Your task to perform on an android device: Search for "apple airpods pro" on costco.com, select the first entry, add it to the cart, then select checkout. Image 0: 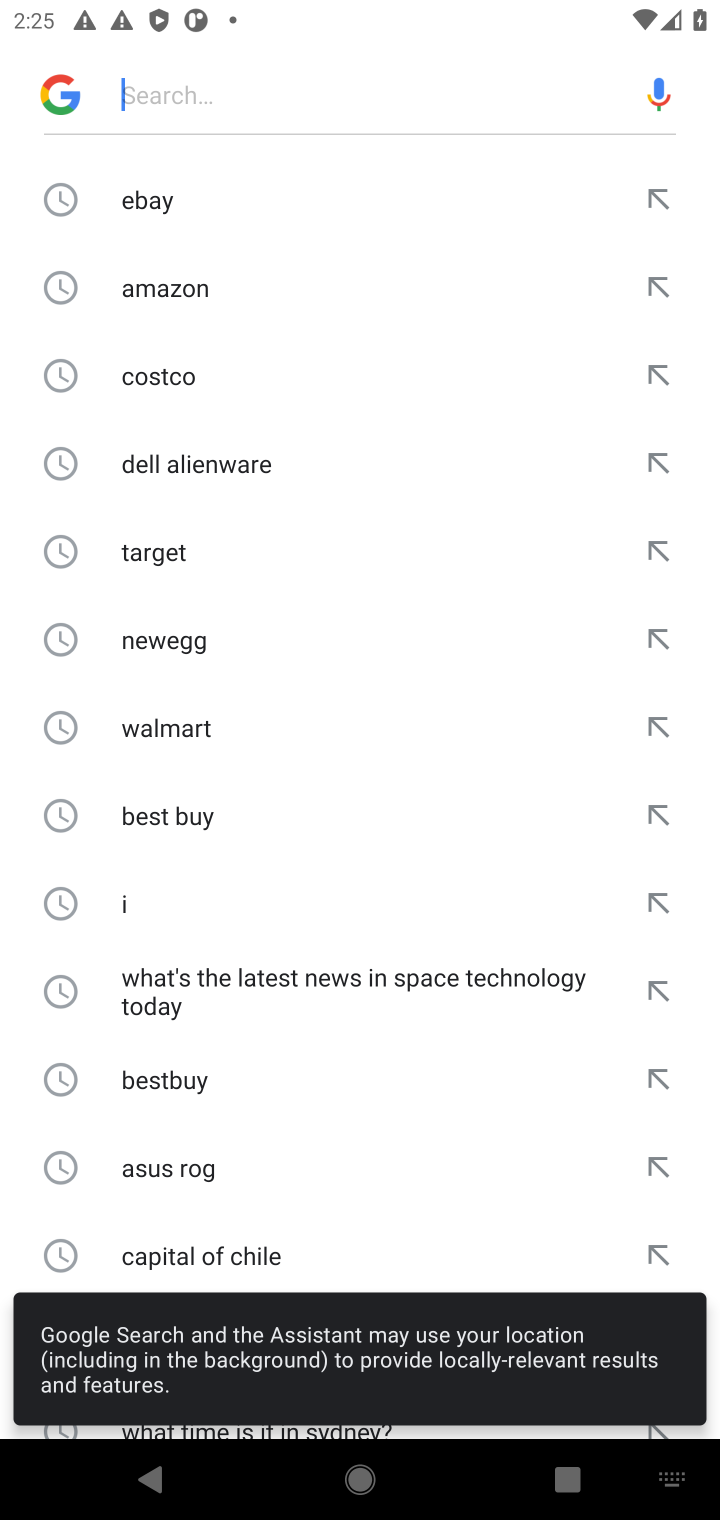
Step 0: press home button
Your task to perform on an android device: Search for "apple airpods pro" on costco.com, select the first entry, add it to the cart, then select checkout. Image 1: 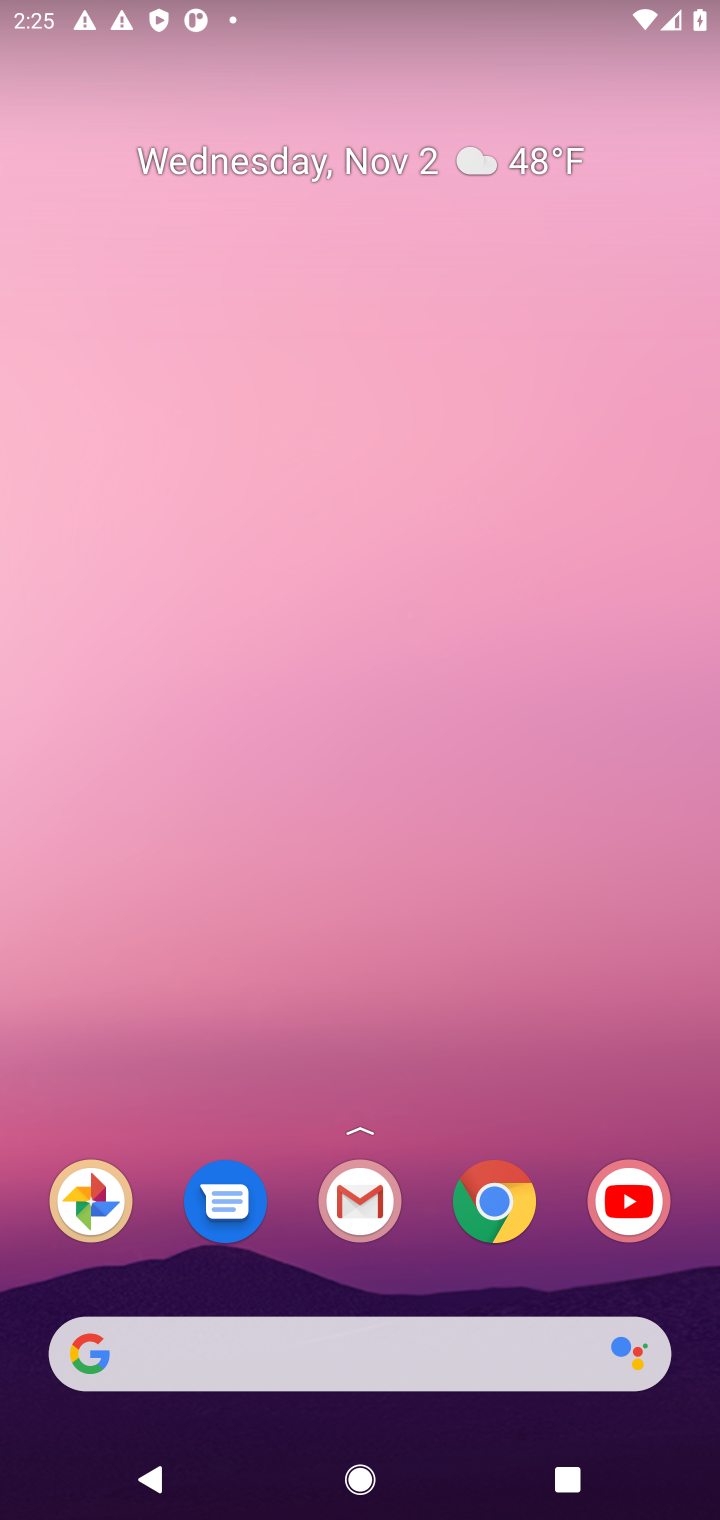
Step 1: click (501, 1204)
Your task to perform on an android device: Search for "apple airpods pro" on costco.com, select the first entry, add it to the cart, then select checkout. Image 2: 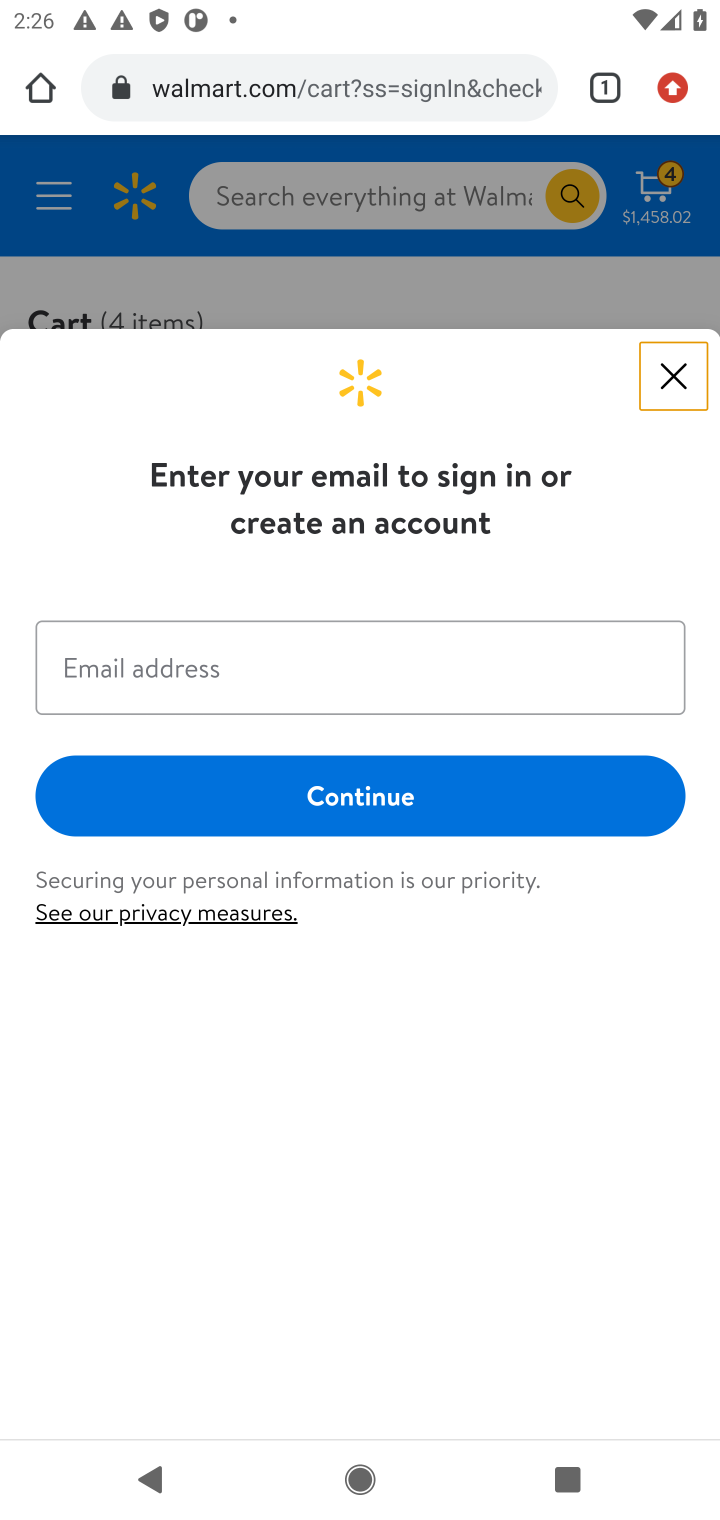
Step 2: click (672, 378)
Your task to perform on an android device: Search for "apple airpods pro" on costco.com, select the first entry, add it to the cart, then select checkout. Image 3: 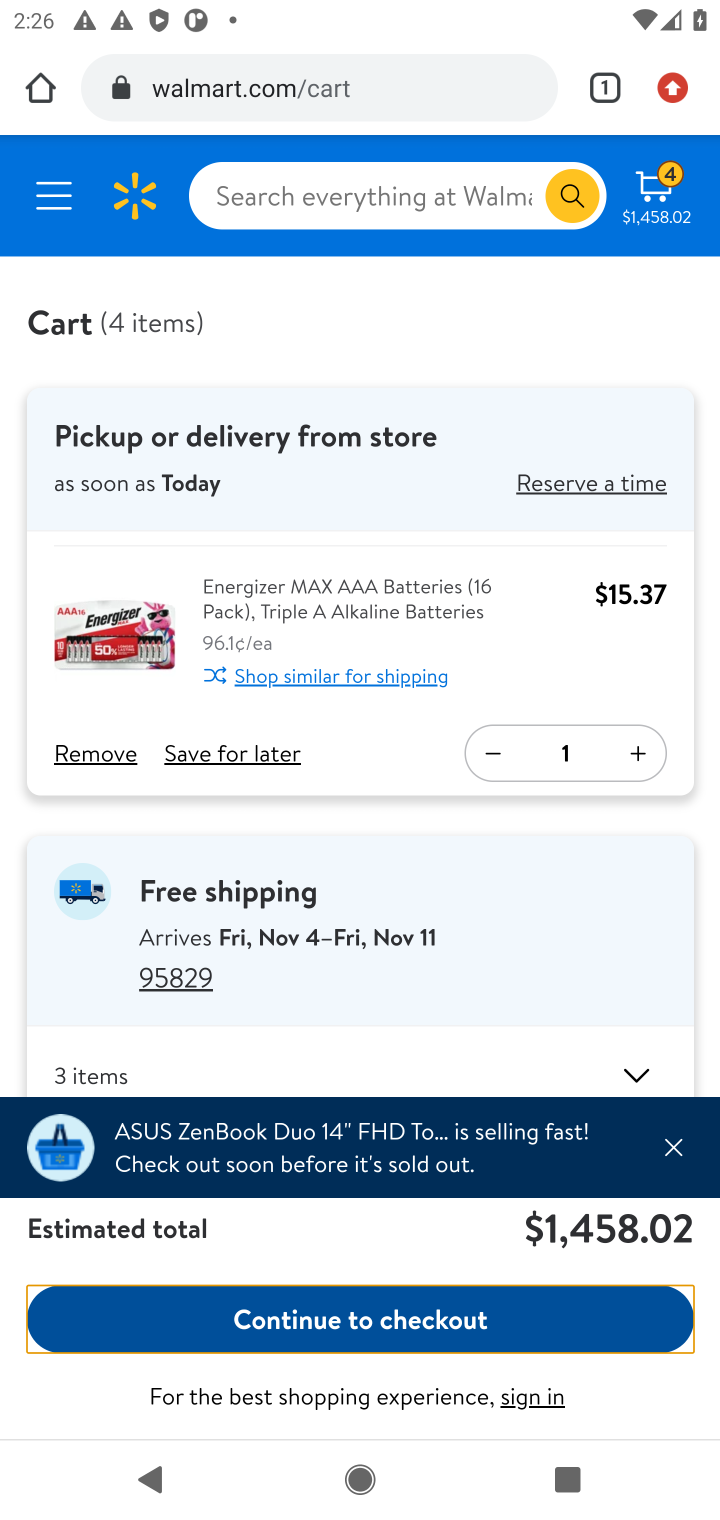
Step 3: click (377, 76)
Your task to perform on an android device: Search for "apple airpods pro" on costco.com, select the first entry, add it to the cart, then select checkout. Image 4: 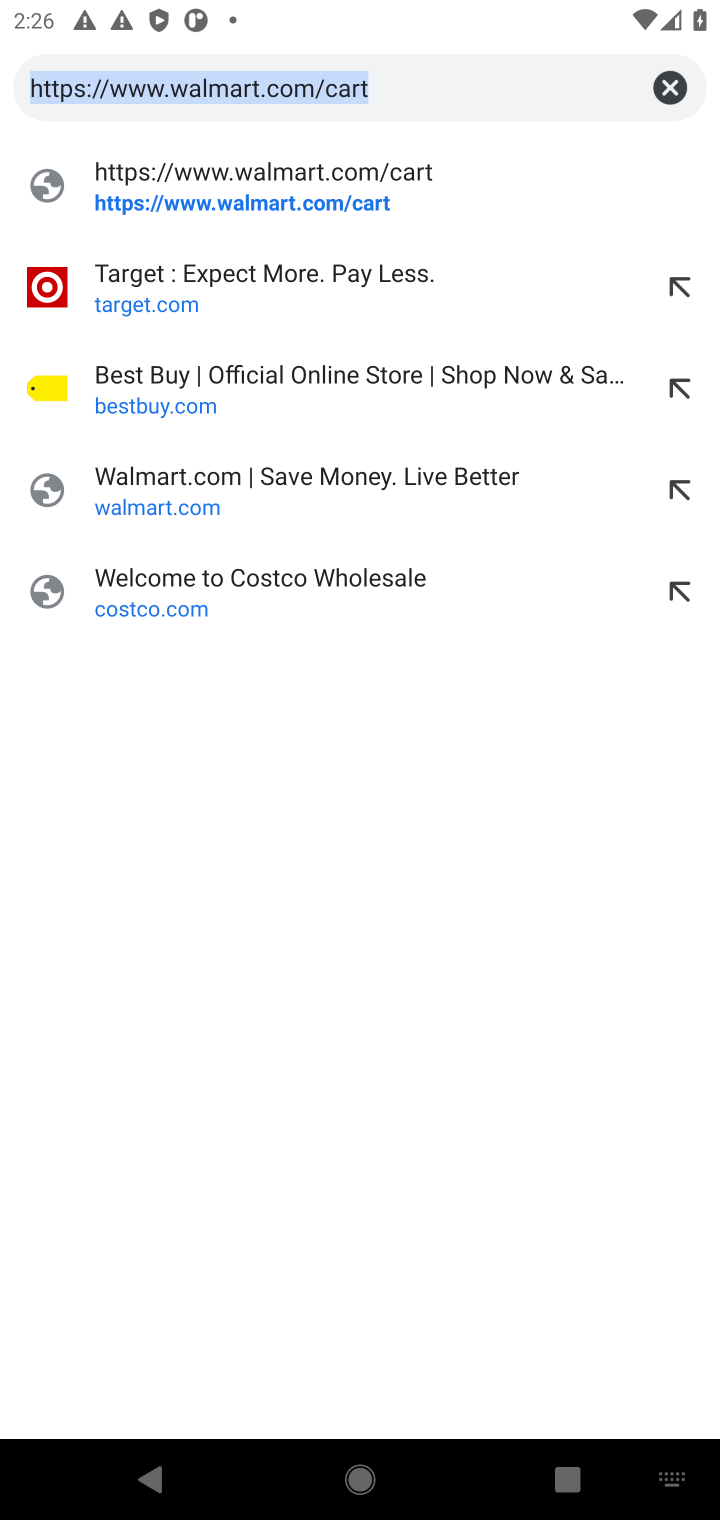
Step 4: click (679, 85)
Your task to perform on an android device: Search for "apple airpods pro" on costco.com, select the first entry, add it to the cart, then select checkout. Image 5: 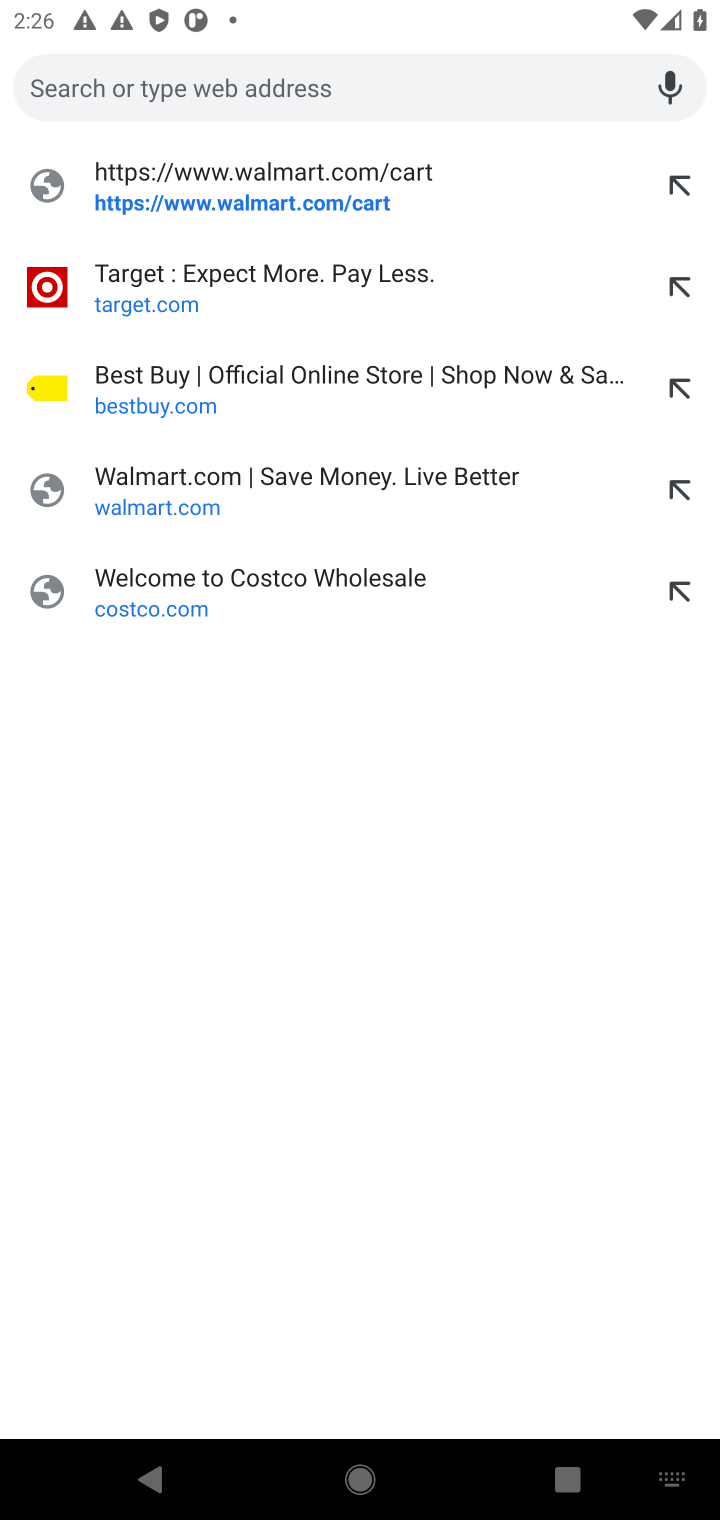
Step 5: type "costco.com"
Your task to perform on an android device: Search for "apple airpods pro" on costco.com, select the first entry, add it to the cart, then select checkout. Image 6: 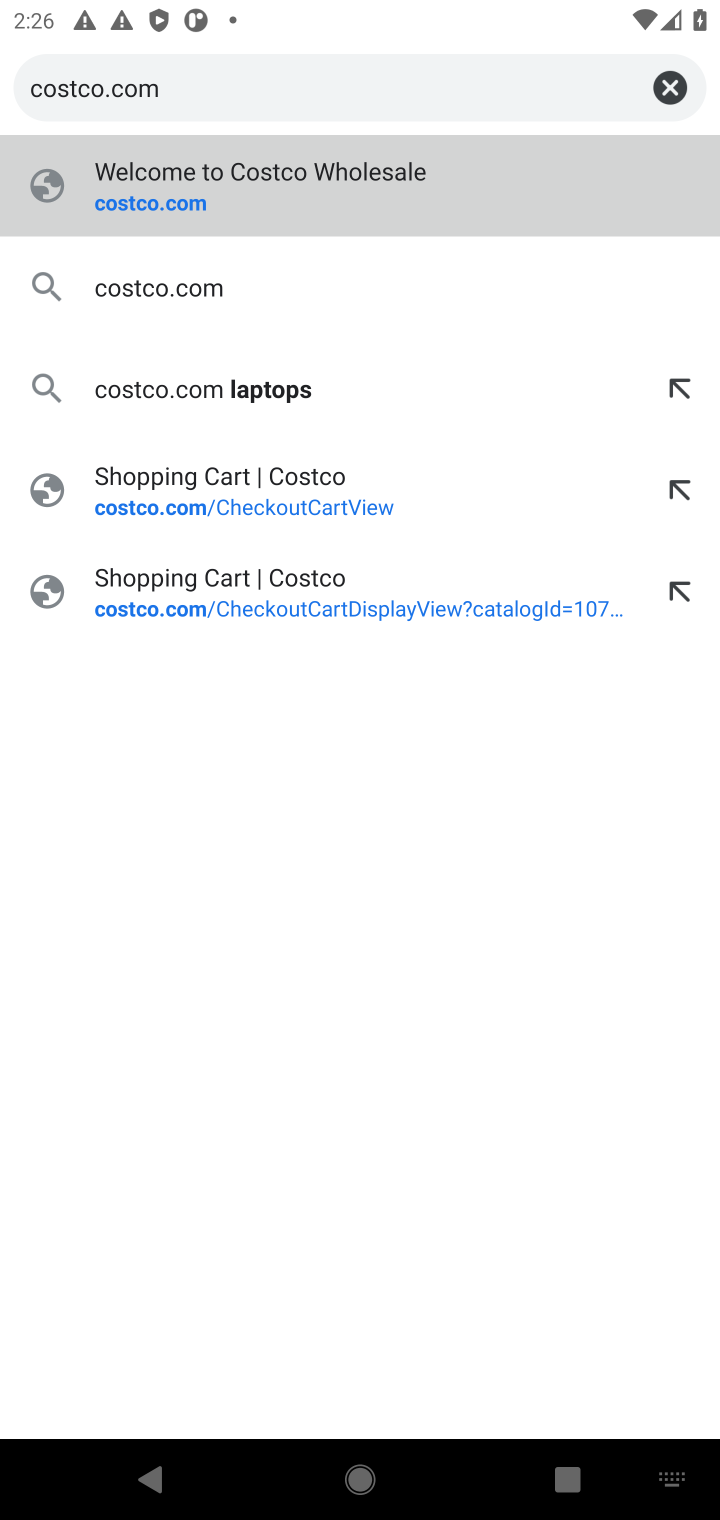
Step 6: press enter
Your task to perform on an android device: Search for "apple airpods pro" on costco.com, select the first entry, add it to the cart, then select checkout. Image 7: 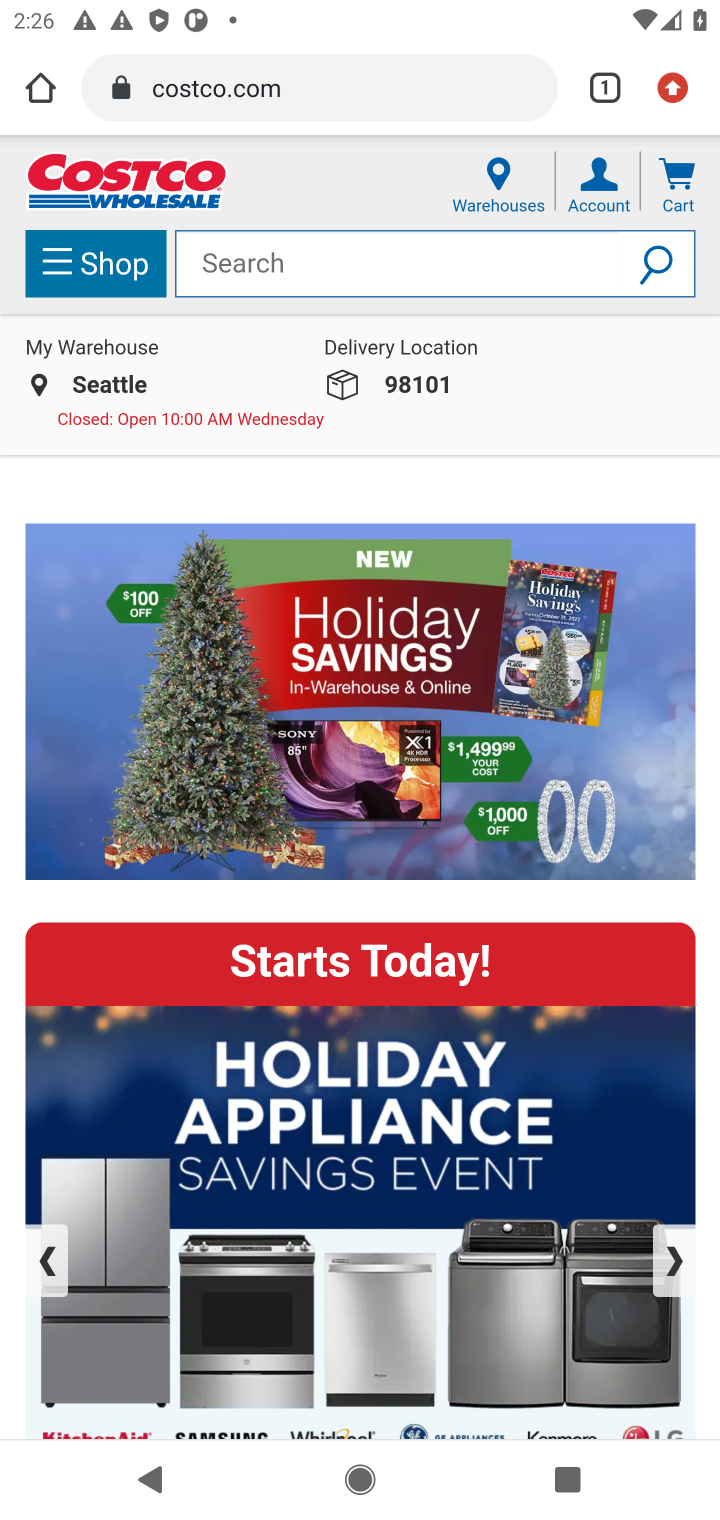
Step 7: click (455, 275)
Your task to perform on an android device: Search for "apple airpods pro" on costco.com, select the first entry, add it to the cart, then select checkout. Image 8: 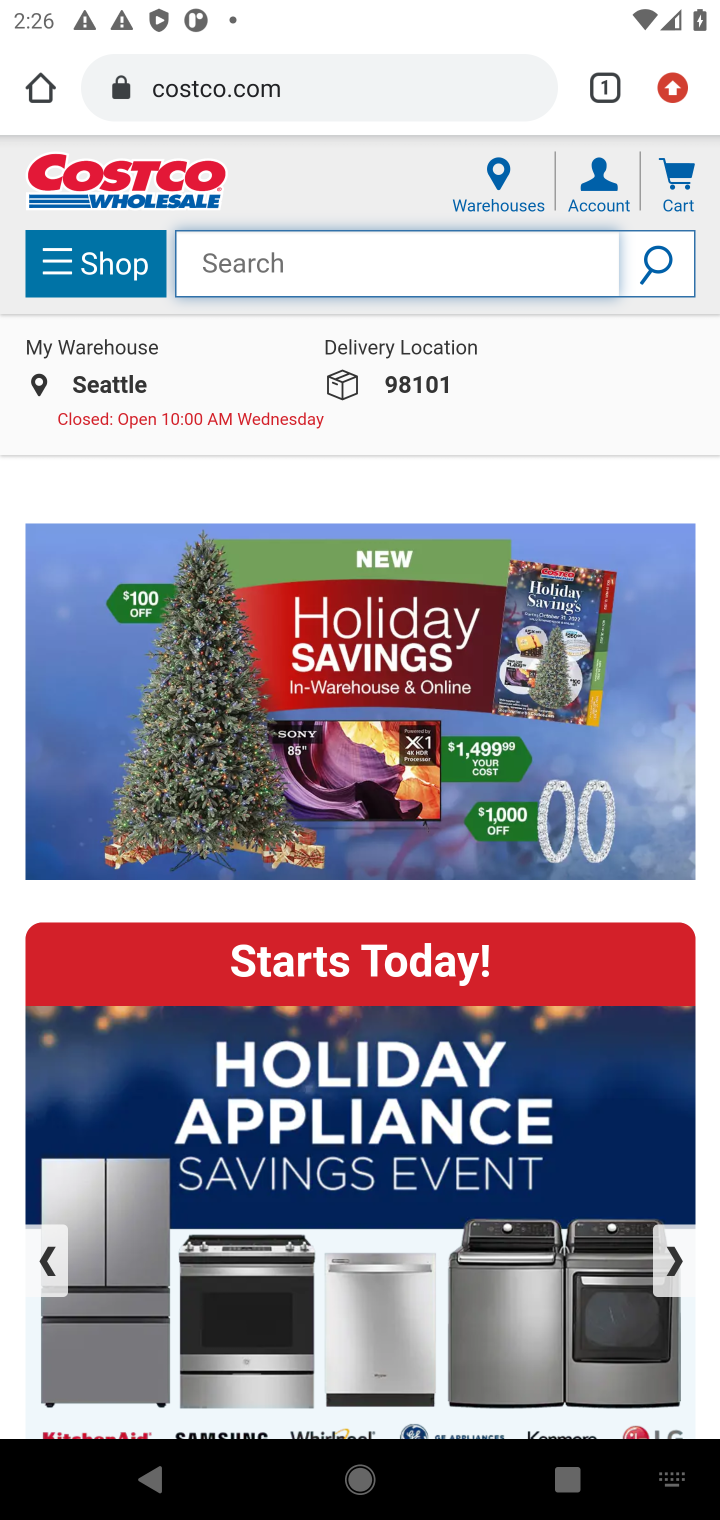
Step 8: press enter
Your task to perform on an android device: Search for "apple airpods pro" on costco.com, select the first entry, add it to the cart, then select checkout. Image 9: 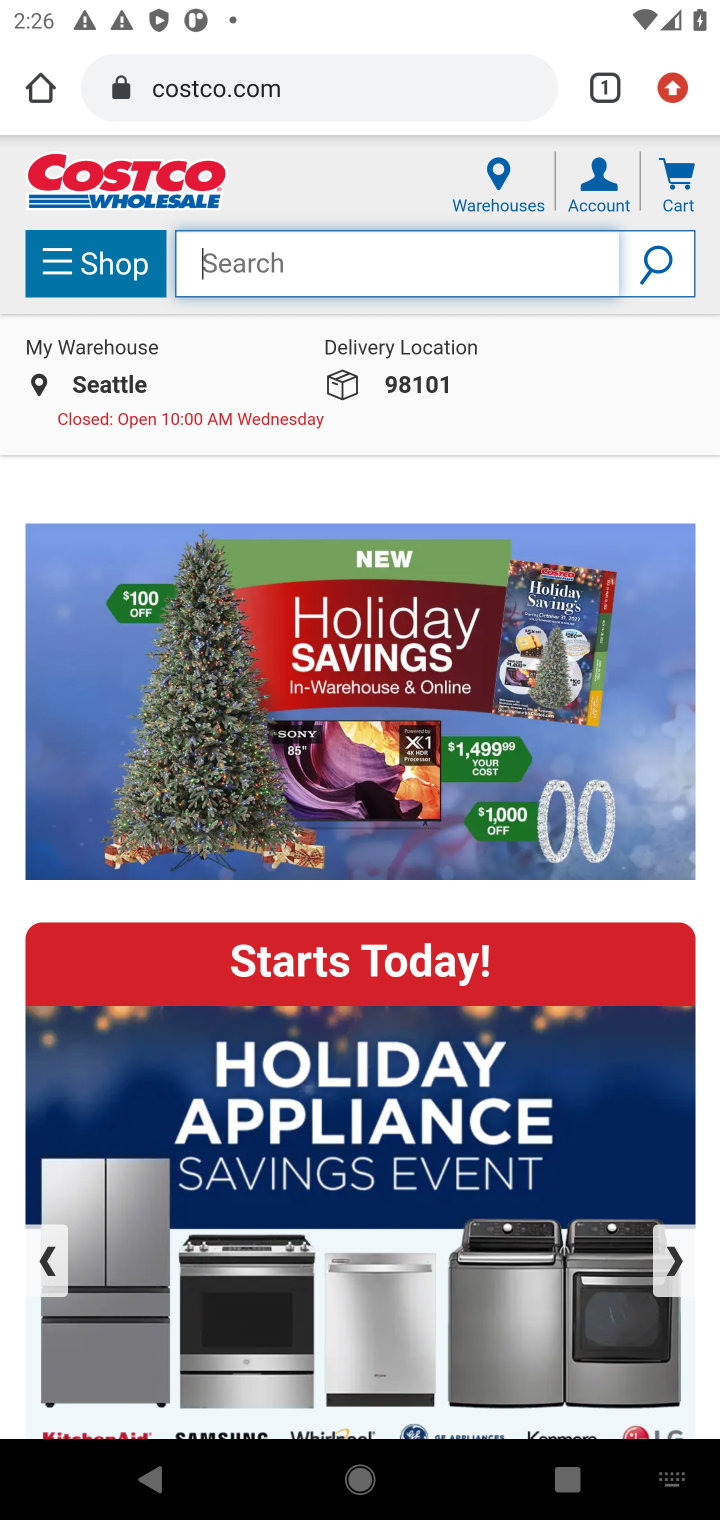
Step 9: type "apple airpods pro"
Your task to perform on an android device: Search for "apple airpods pro" on costco.com, select the first entry, add it to the cart, then select checkout. Image 10: 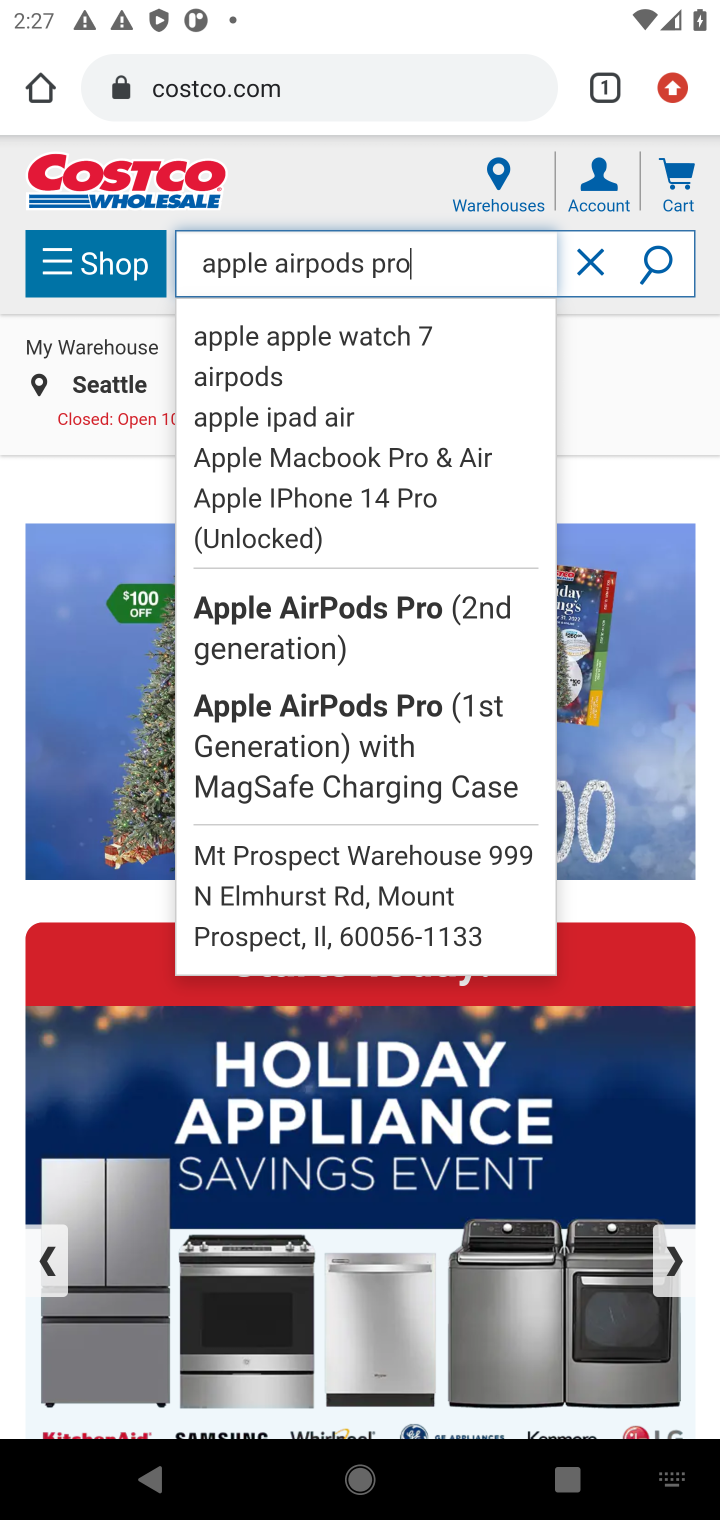
Step 10: click (660, 355)
Your task to perform on an android device: Search for "apple airpods pro" on costco.com, select the first entry, add it to the cart, then select checkout. Image 11: 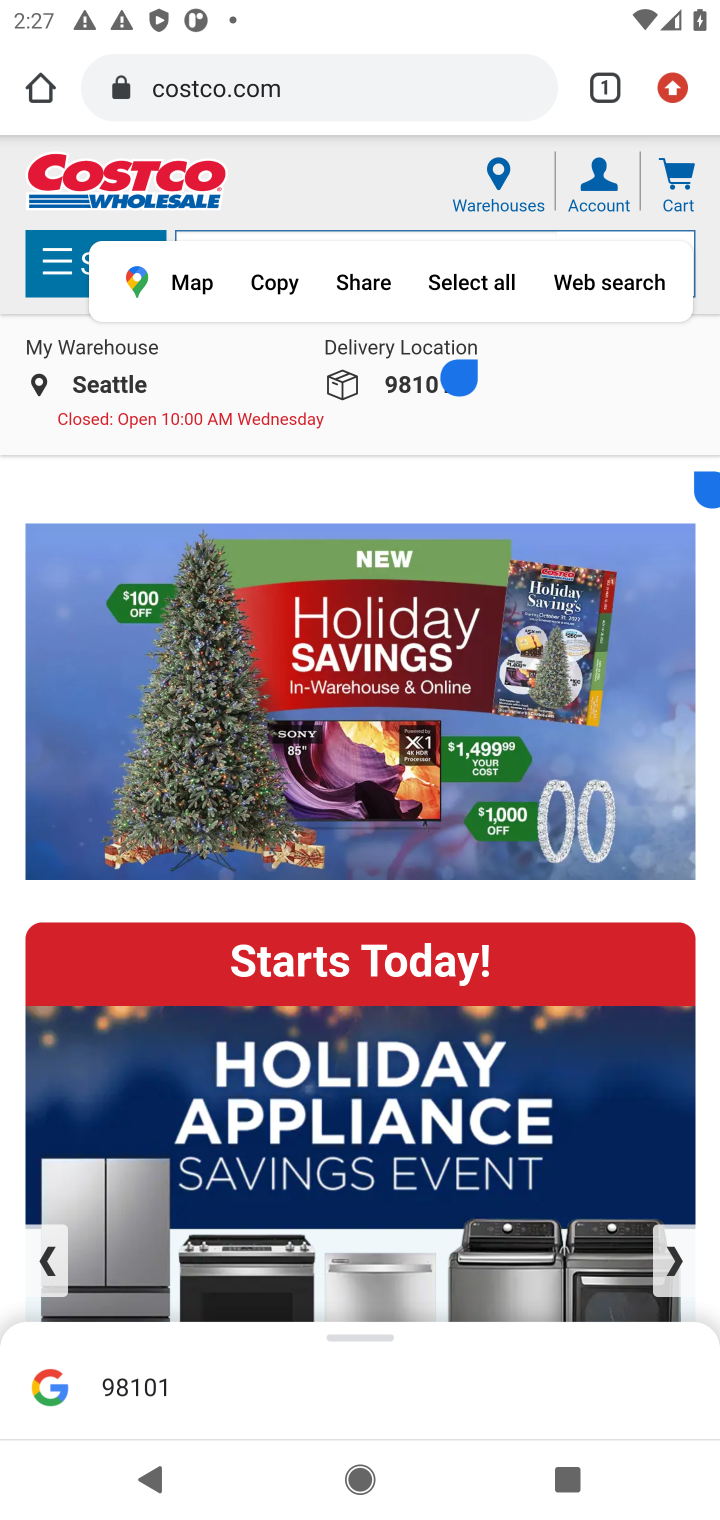
Step 11: click (660, 355)
Your task to perform on an android device: Search for "apple airpods pro" on costco.com, select the first entry, add it to the cart, then select checkout. Image 12: 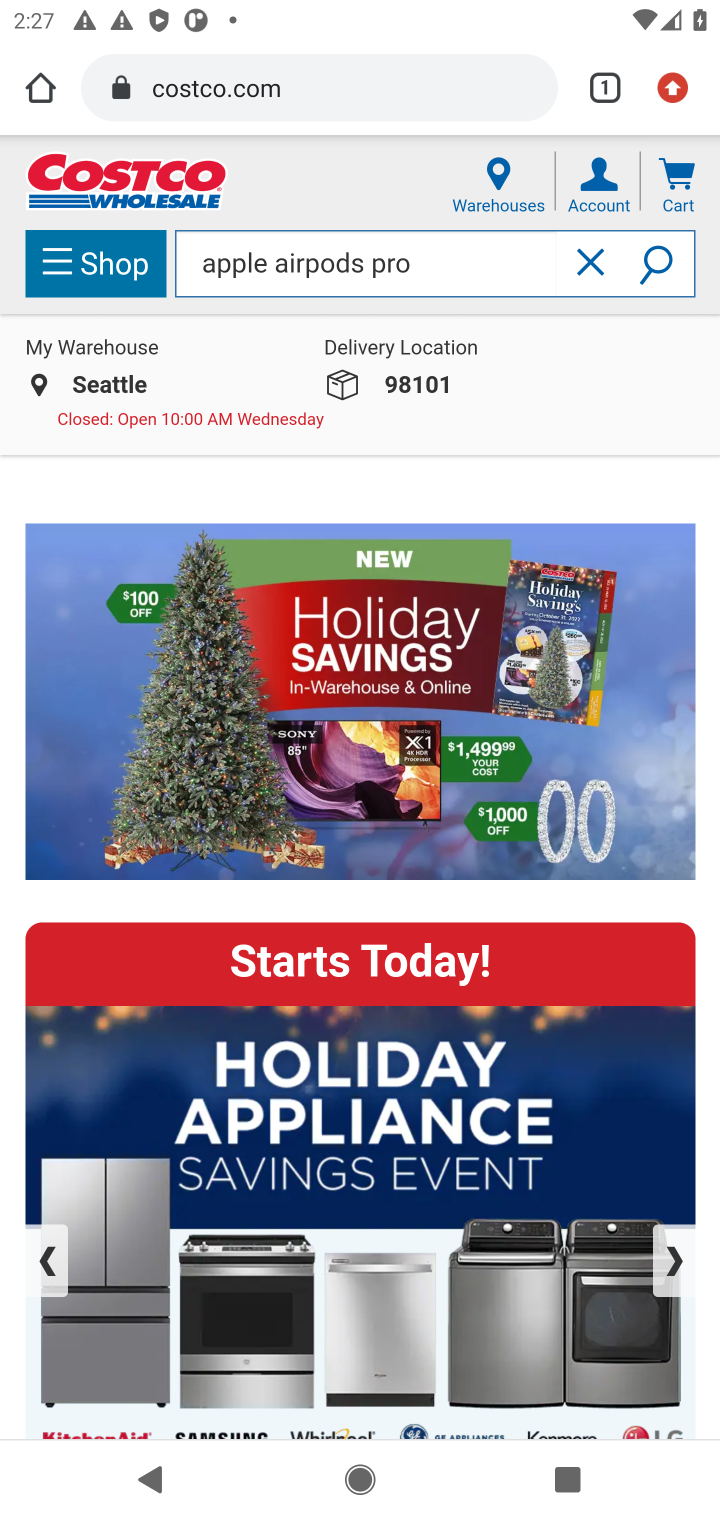
Step 12: click (456, 249)
Your task to perform on an android device: Search for "apple airpods pro" on costco.com, select the first entry, add it to the cart, then select checkout. Image 13: 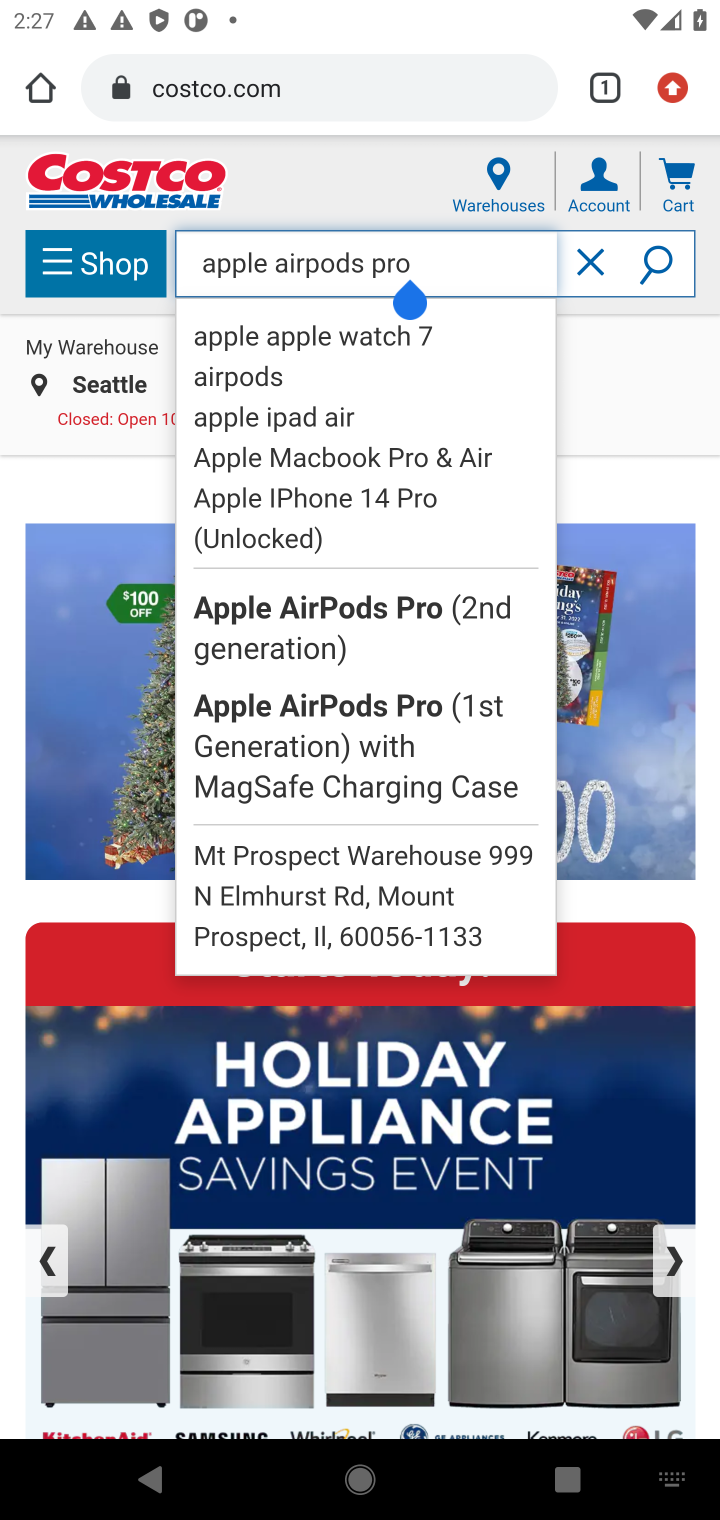
Step 13: click (257, 374)
Your task to perform on an android device: Search for "apple airpods pro" on costco.com, select the first entry, add it to the cart, then select checkout. Image 14: 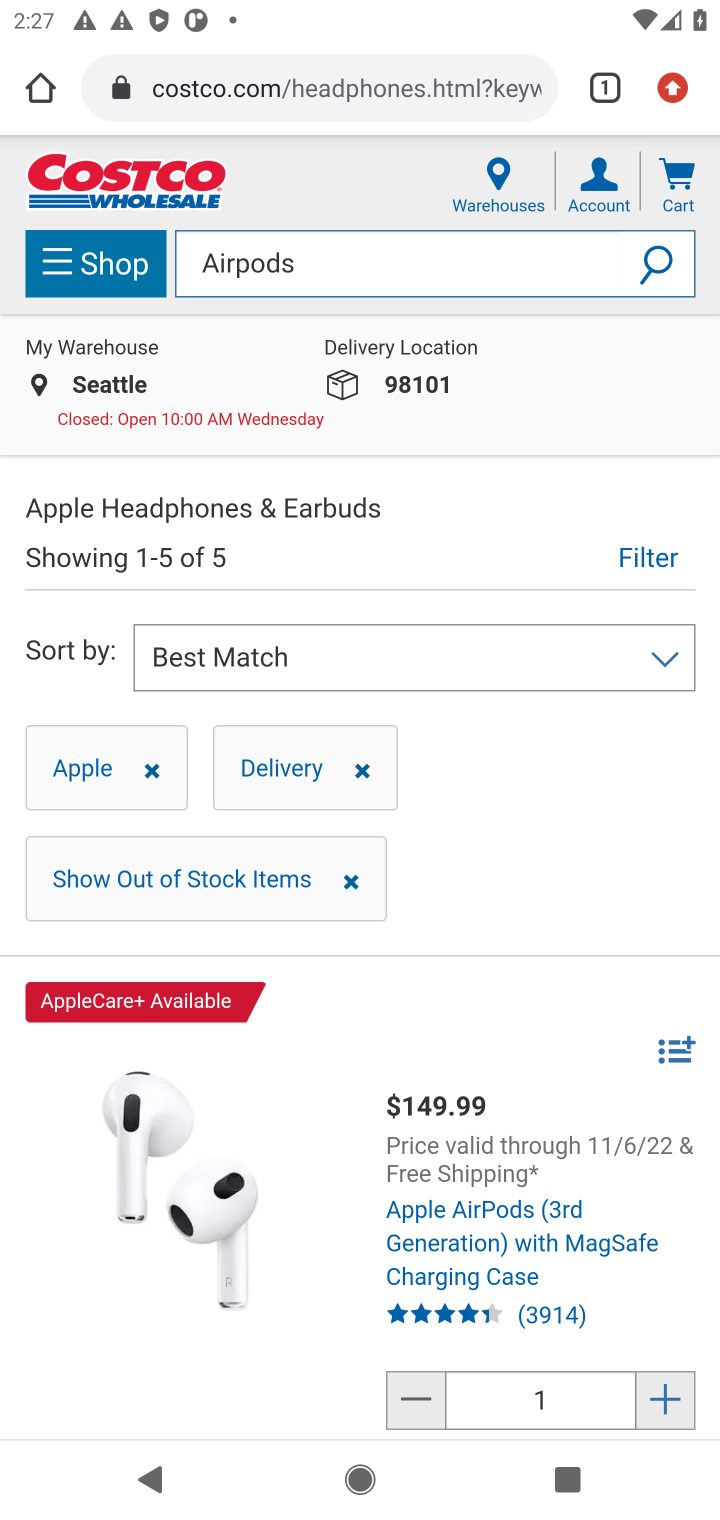
Step 14: click (240, 1176)
Your task to perform on an android device: Search for "apple airpods pro" on costco.com, select the first entry, add it to the cart, then select checkout. Image 15: 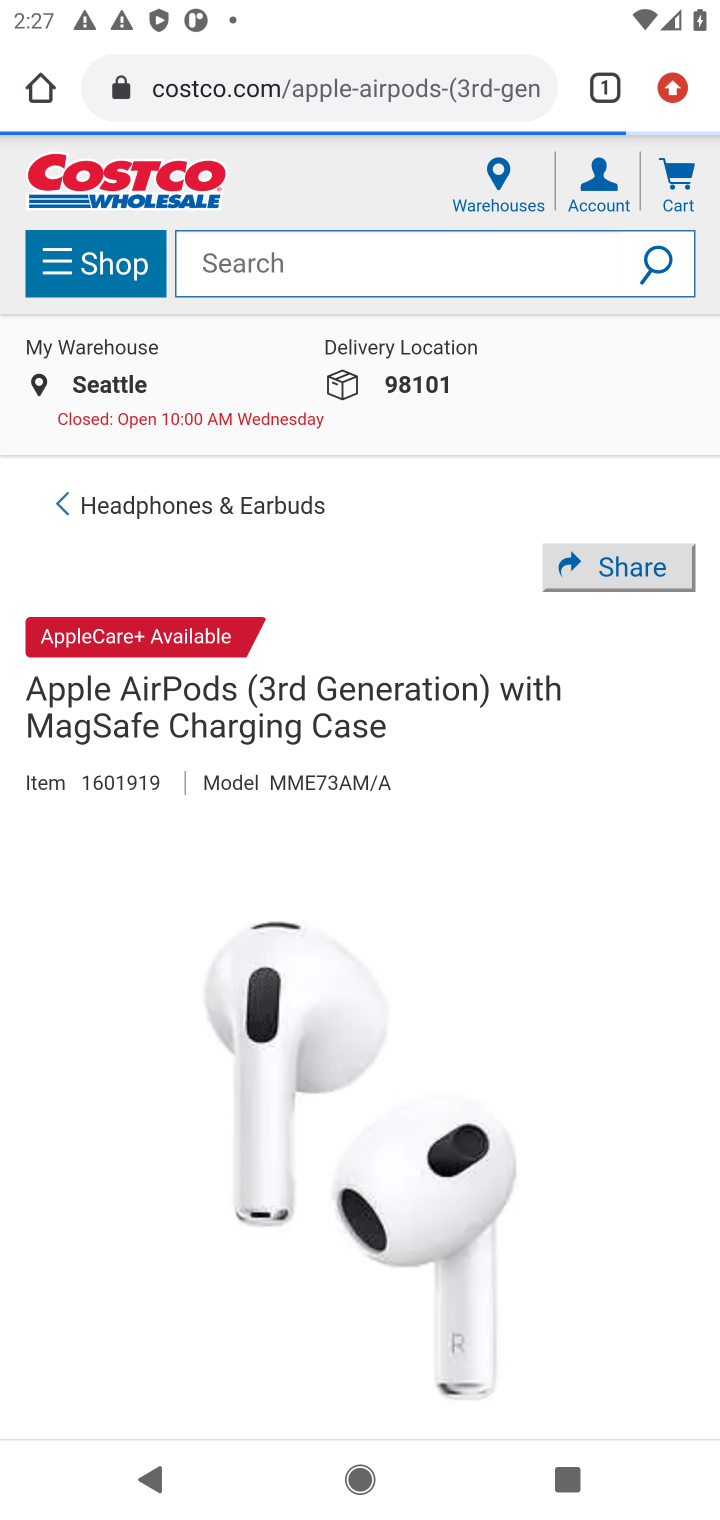
Step 15: drag from (538, 1048) to (553, 422)
Your task to perform on an android device: Search for "apple airpods pro" on costco.com, select the first entry, add it to the cart, then select checkout. Image 16: 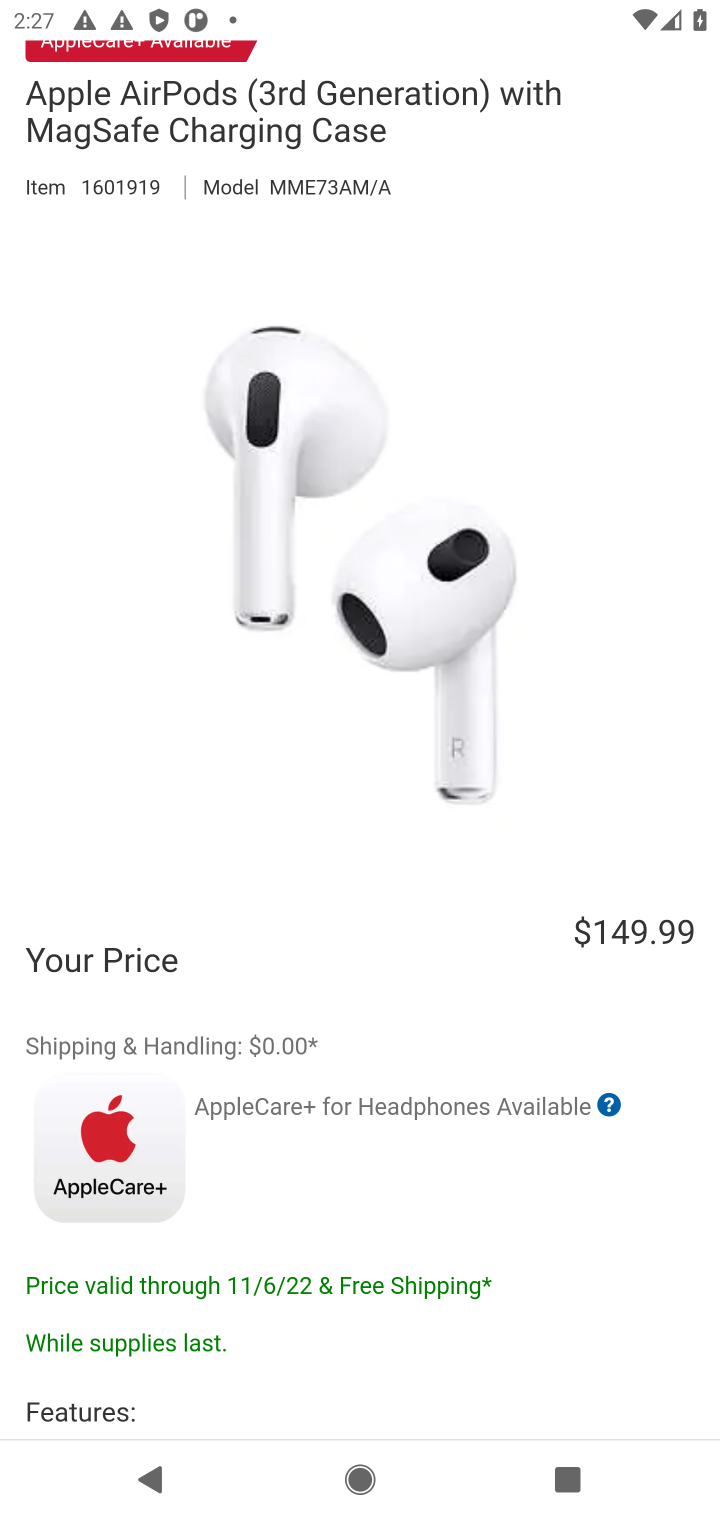
Step 16: drag from (502, 1179) to (435, 503)
Your task to perform on an android device: Search for "apple airpods pro" on costco.com, select the first entry, add it to the cart, then select checkout. Image 17: 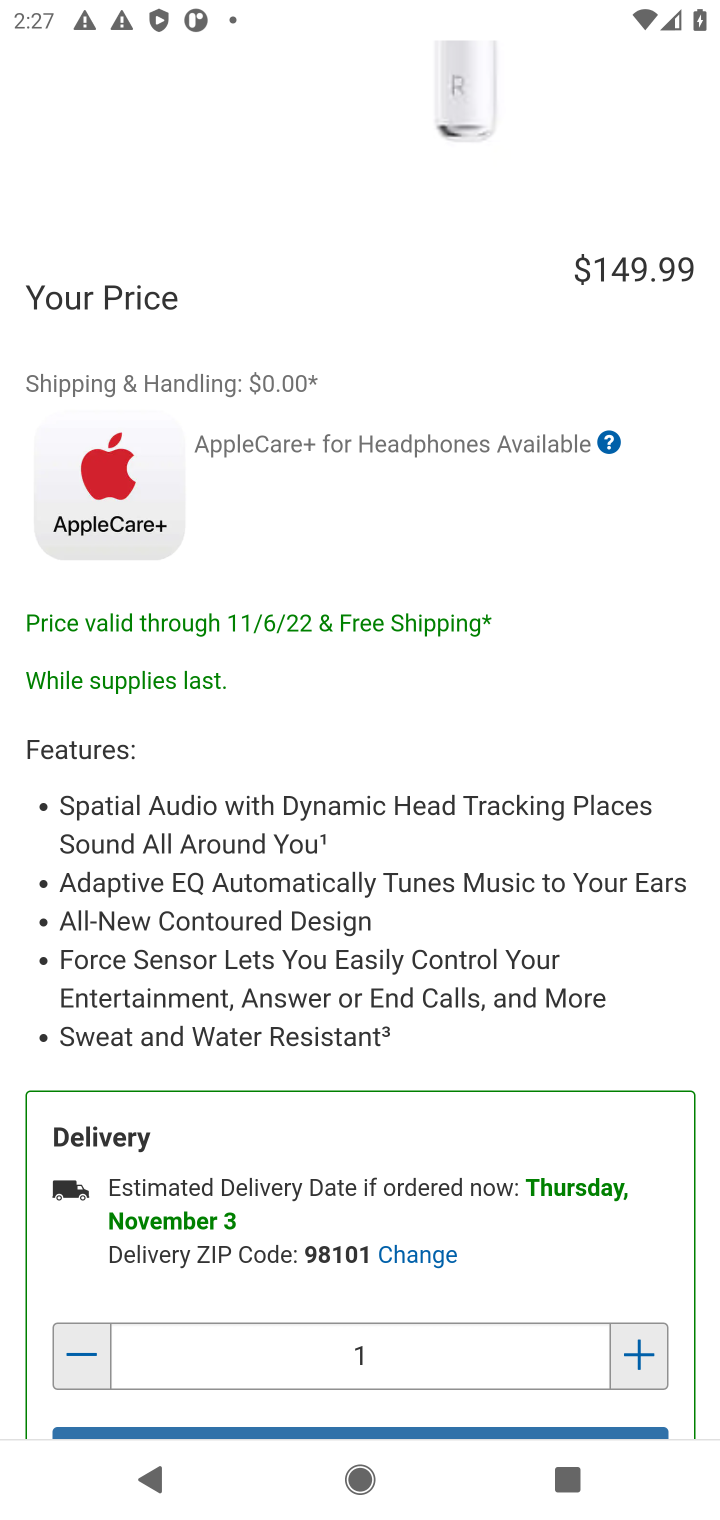
Step 17: drag from (461, 997) to (495, 548)
Your task to perform on an android device: Search for "apple airpods pro" on costco.com, select the first entry, add it to the cart, then select checkout. Image 18: 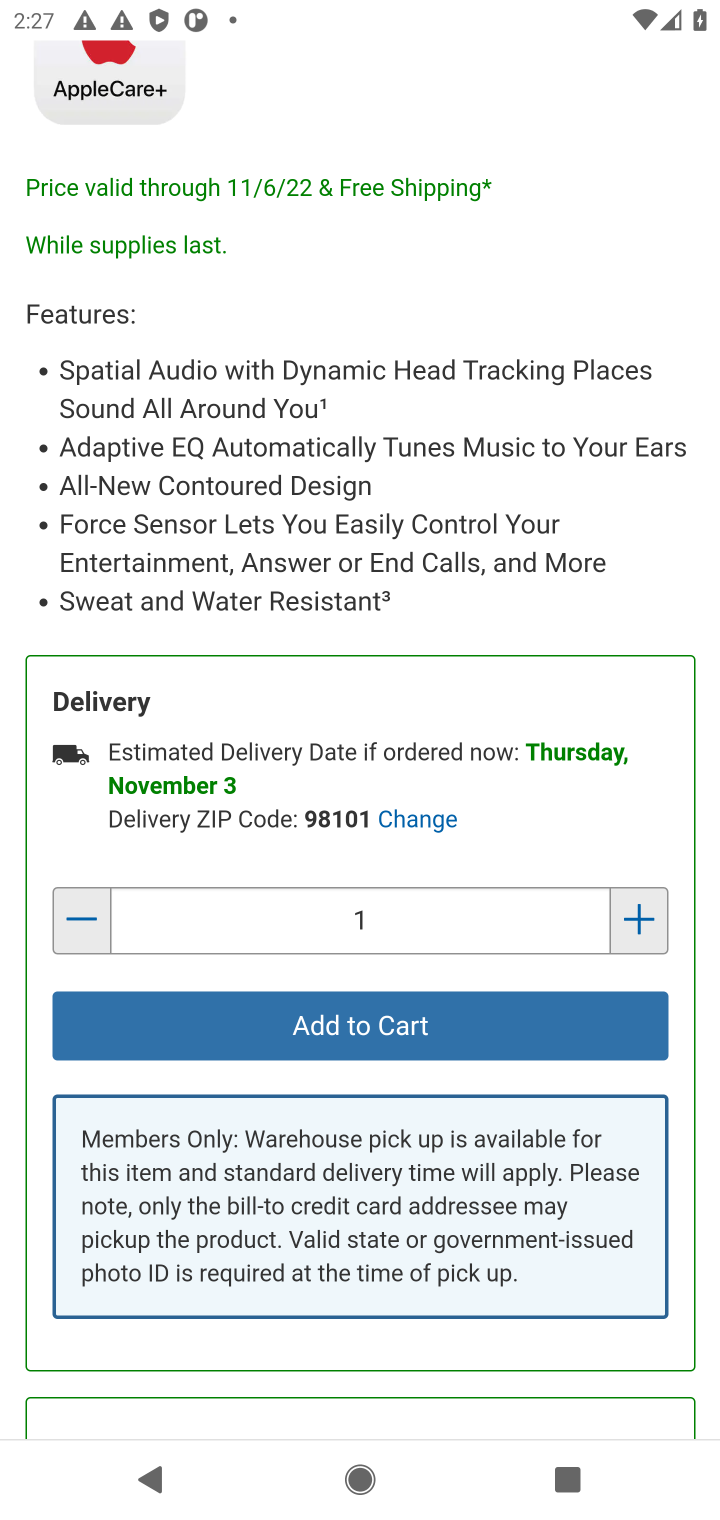
Step 18: click (402, 1031)
Your task to perform on an android device: Search for "apple airpods pro" on costco.com, select the first entry, add it to the cart, then select checkout. Image 19: 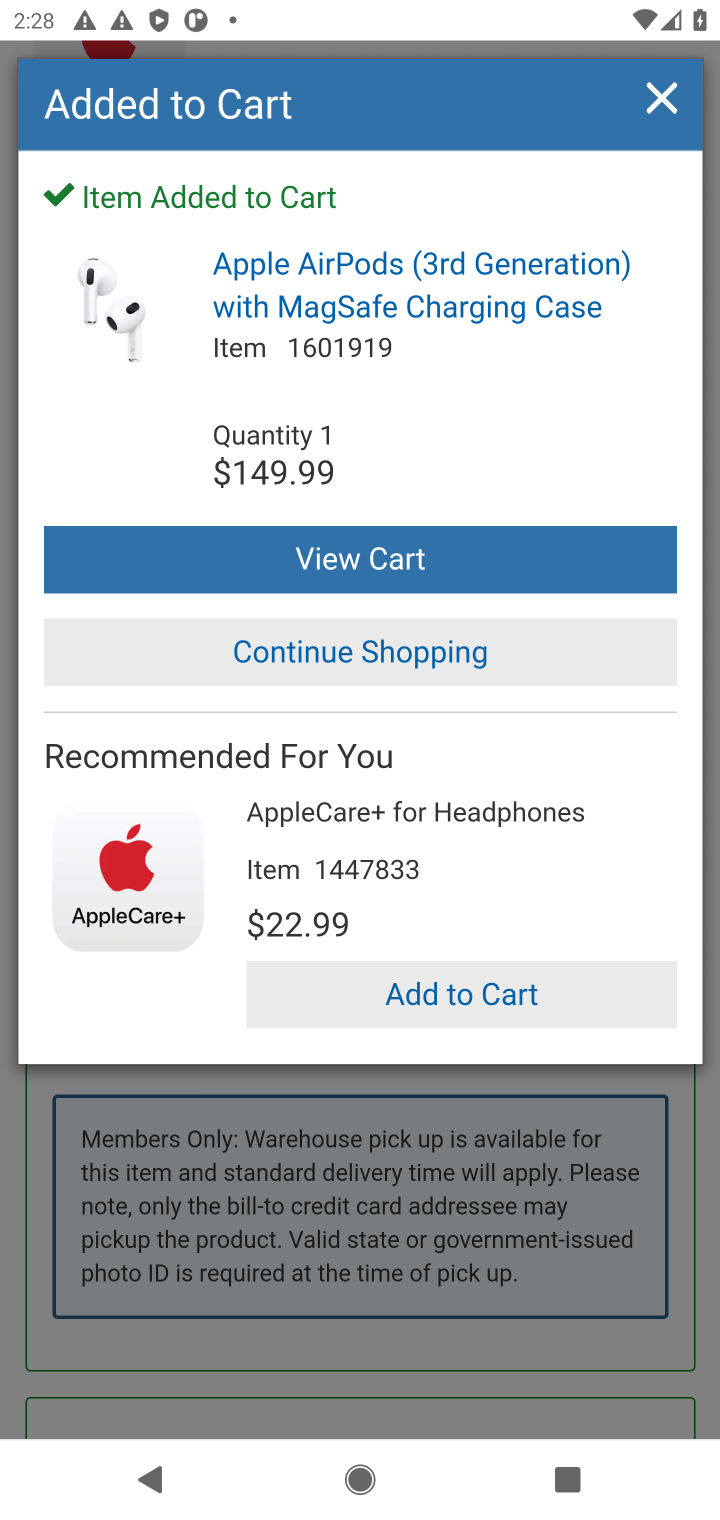
Step 19: click (436, 555)
Your task to perform on an android device: Search for "apple airpods pro" on costco.com, select the first entry, add it to the cart, then select checkout. Image 20: 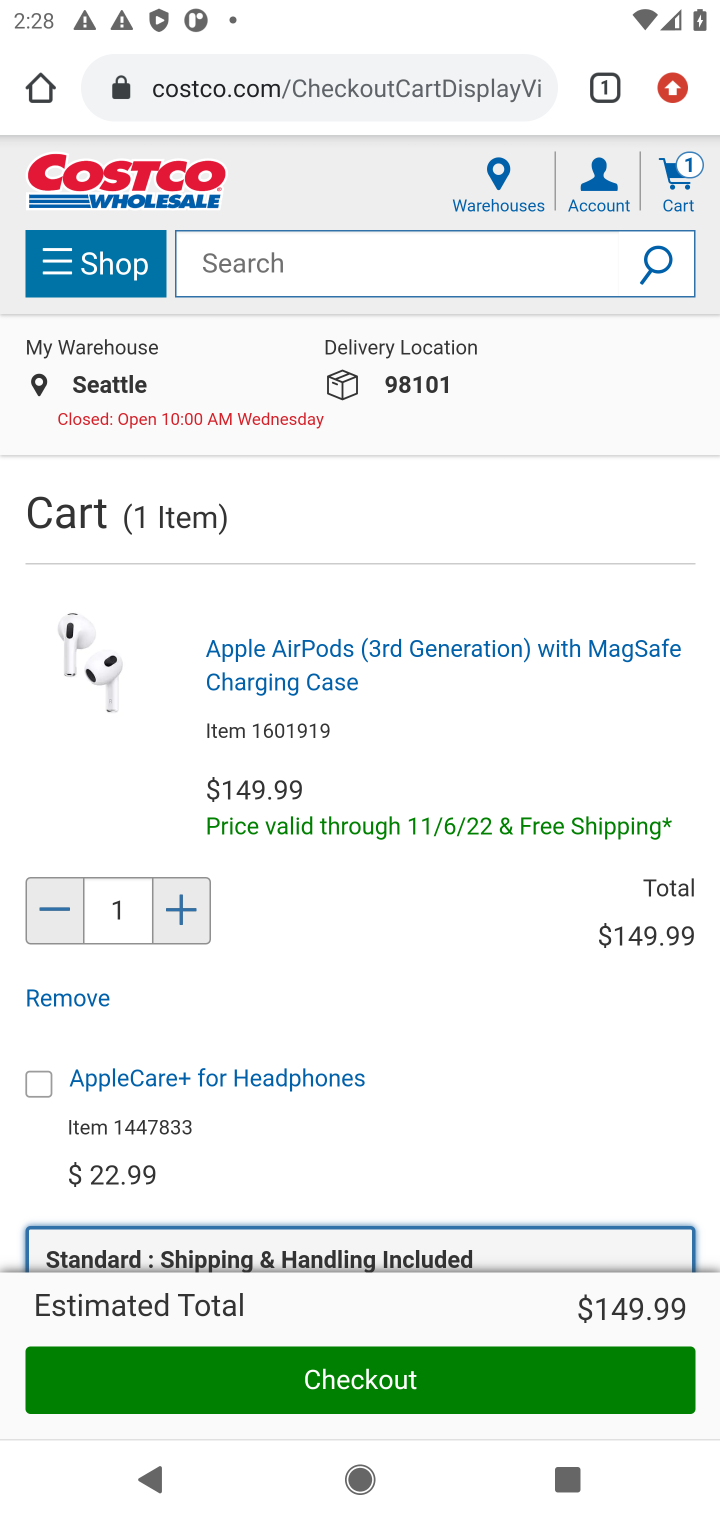
Step 20: click (406, 1379)
Your task to perform on an android device: Search for "apple airpods pro" on costco.com, select the first entry, add it to the cart, then select checkout. Image 21: 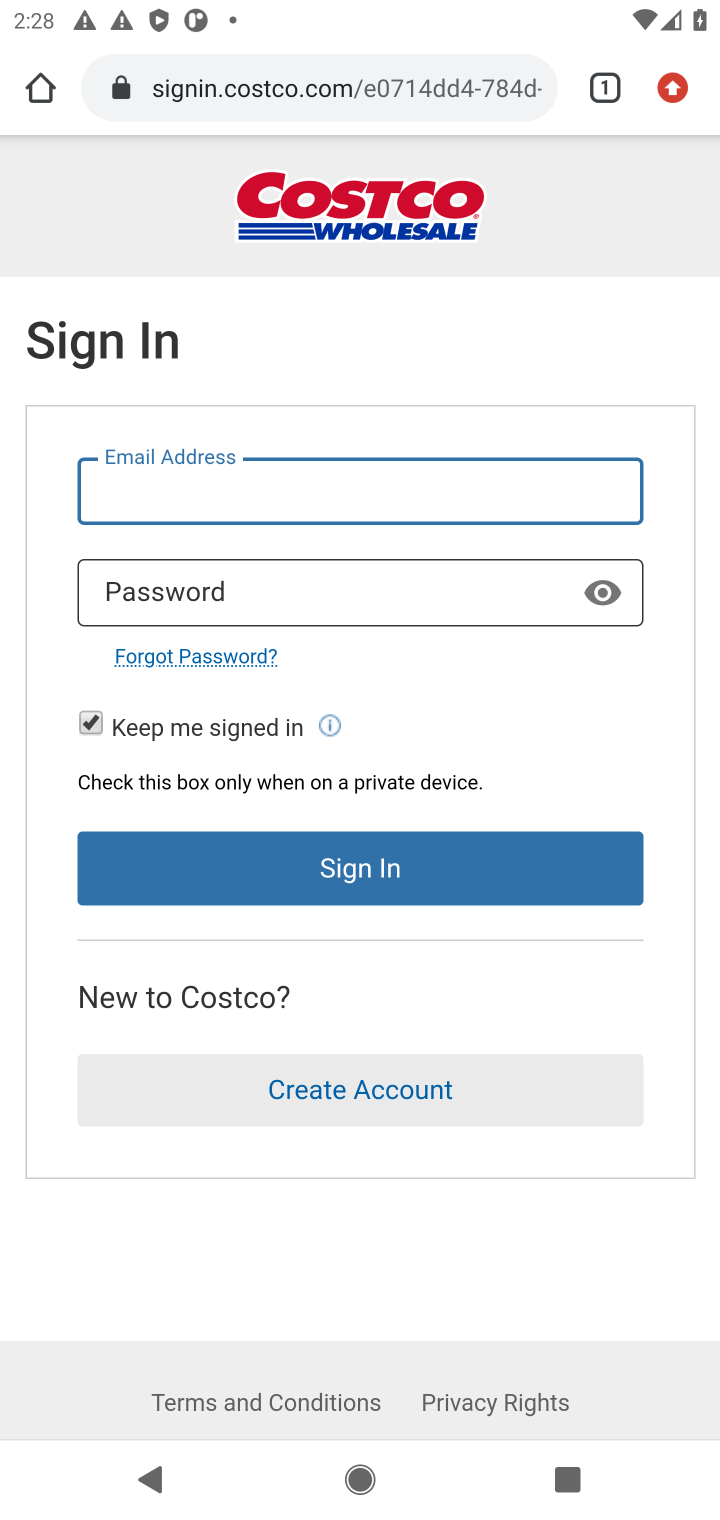
Step 21: task complete